Your task to perform on an android device: empty trash in google photos Image 0: 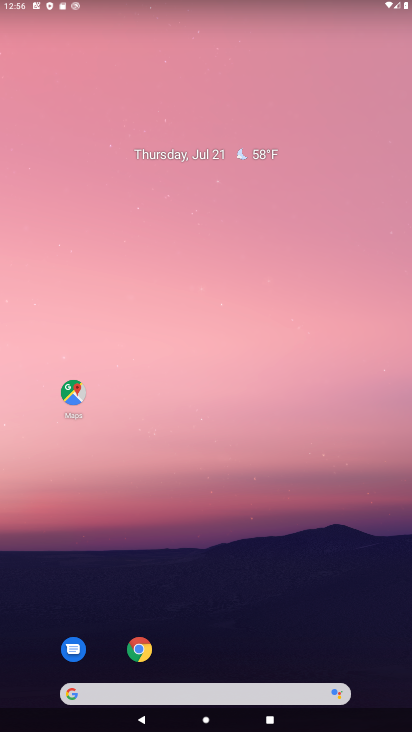
Step 0: drag from (244, 655) to (280, 168)
Your task to perform on an android device: empty trash in google photos Image 1: 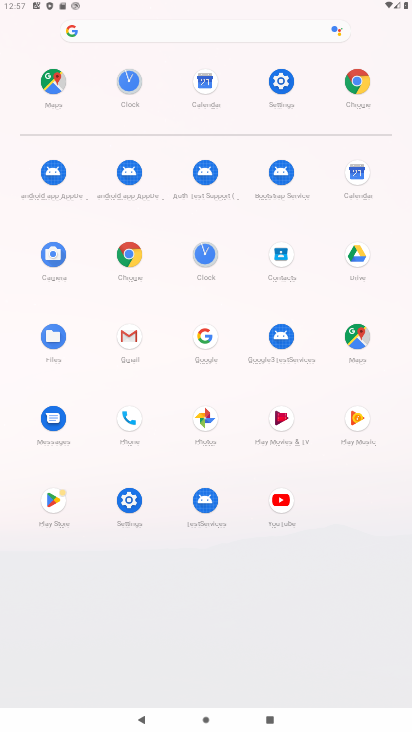
Step 1: task complete